Your task to perform on an android device: turn off javascript in the chrome app Image 0: 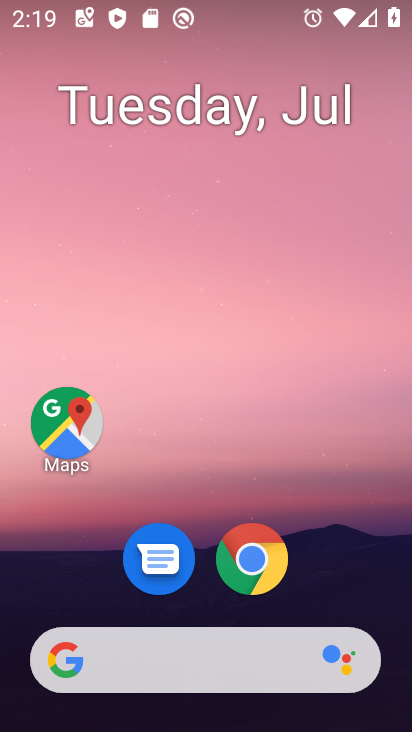
Step 0: press home button
Your task to perform on an android device: turn off javascript in the chrome app Image 1: 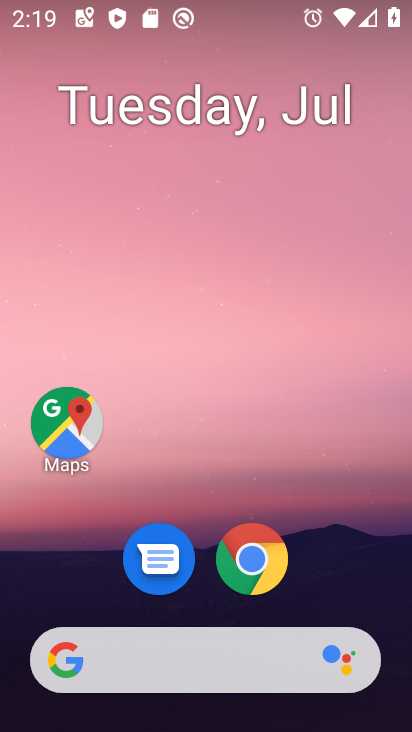
Step 1: drag from (359, 570) to (369, 118)
Your task to perform on an android device: turn off javascript in the chrome app Image 2: 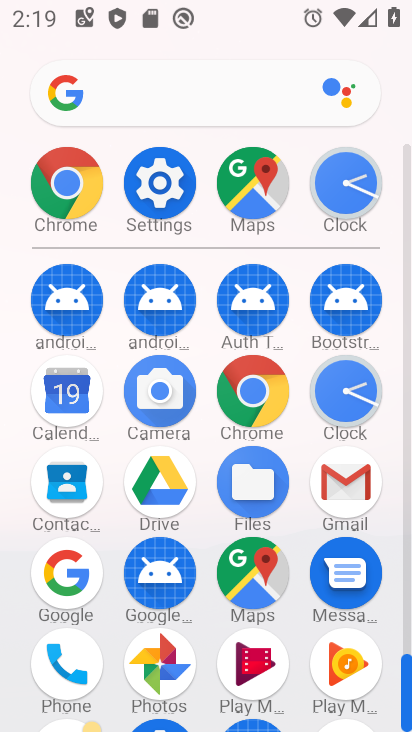
Step 2: click (266, 395)
Your task to perform on an android device: turn off javascript in the chrome app Image 3: 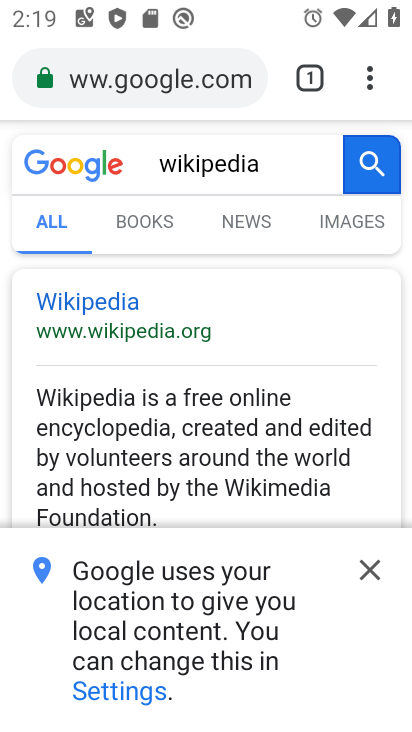
Step 3: click (372, 91)
Your task to perform on an android device: turn off javascript in the chrome app Image 4: 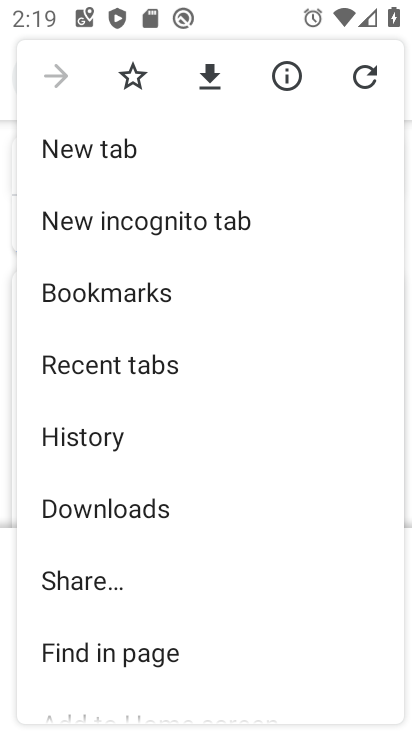
Step 4: drag from (348, 415) to (357, 329)
Your task to perform on an android device: turn off javascript in the chrome app Image 5: 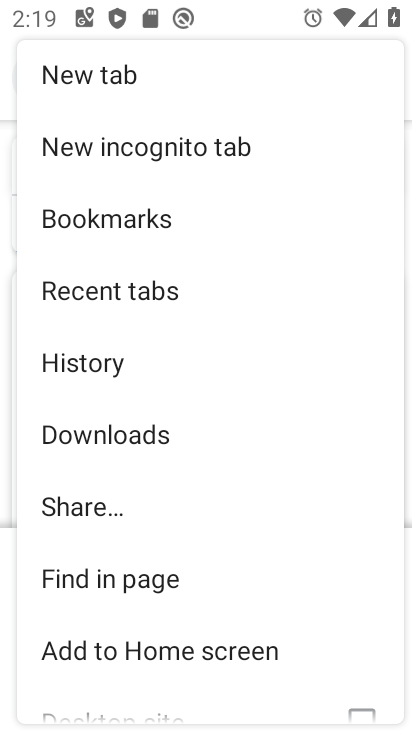
Step 5: drag from (339, 402) to (341, 320)
Your task to perform on an android device: turn off javascript in the chrome app Image 6: 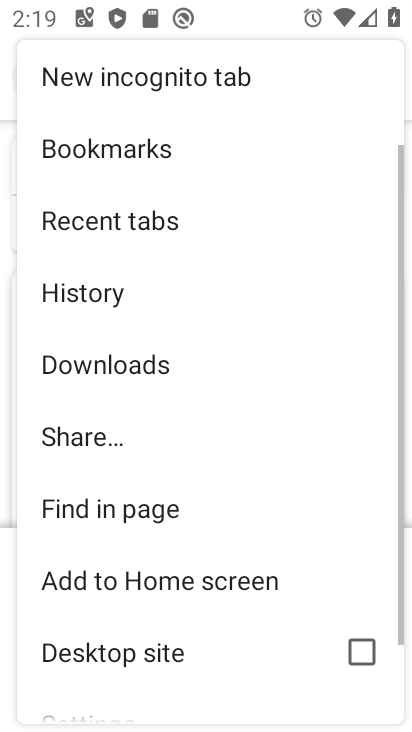
Step 6: drag from (329, 427) to (334, 333)
Your task to perform on an android device: turn off javascript in the chrome app Image 7: 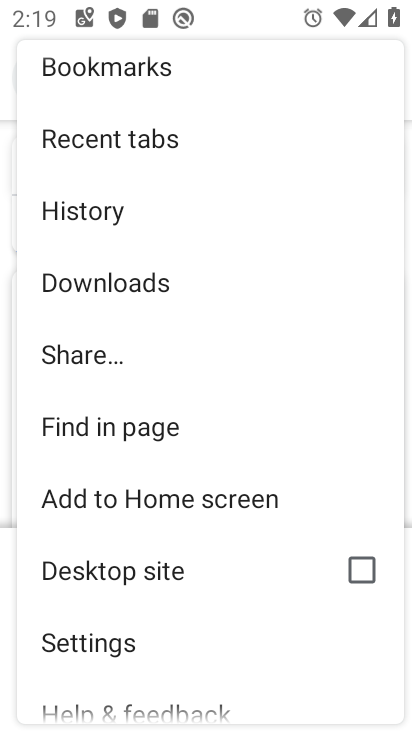
Step 7: drag from (320, 431) to (321, 335)
Your task to perform on an android device: turn off javascript in the chrome app Image 8: 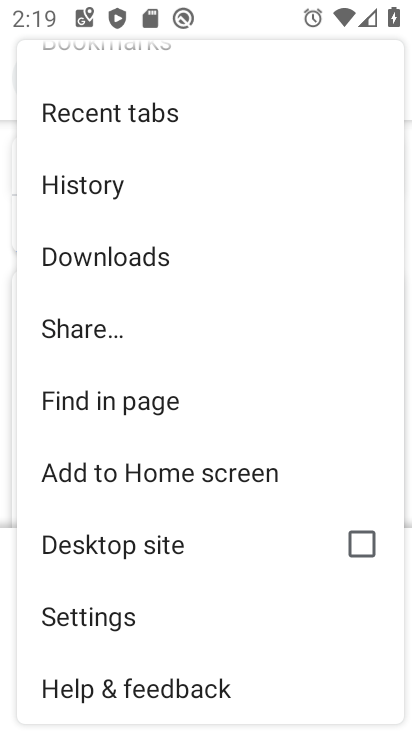
Step 8: click (129, 623)
Your task to perform on an android device: turn off javascript in the chrome app Image 9: 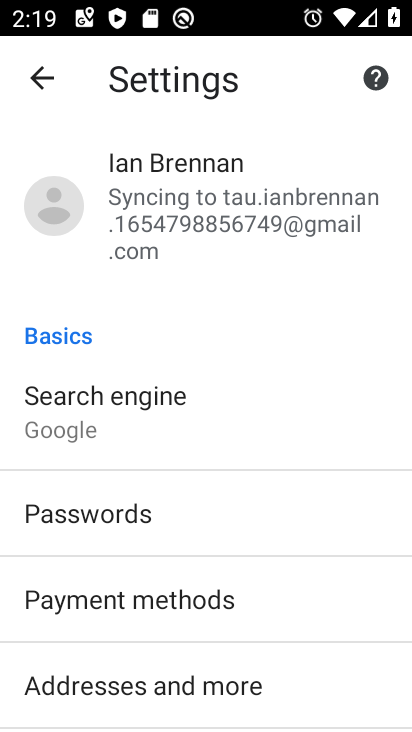
Step 9: drag from (330, 563) to (348, 481)
Your task to perform on an android device: turn off javascript in the chrome app Image 10: 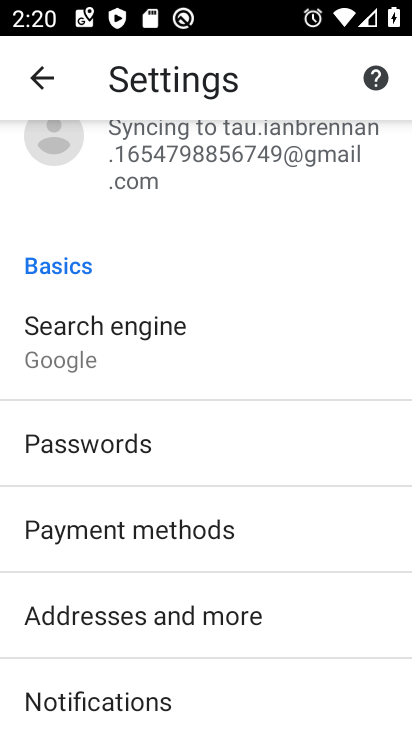
Step 10: drag from (349, 555) to (355, 493)
Your task to perform on an android device: turn off javascript in the chrome app Image 11: 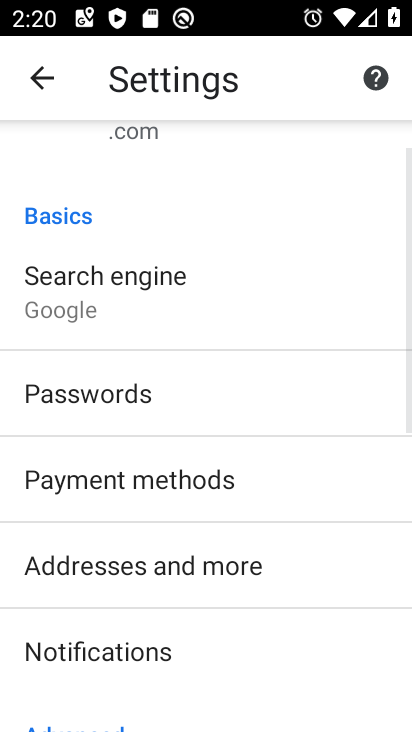
Step 11: drag from (359, 570) to (359, 472)
Your task to perform on an android device: turn off javascript in the chrome app Image 12: 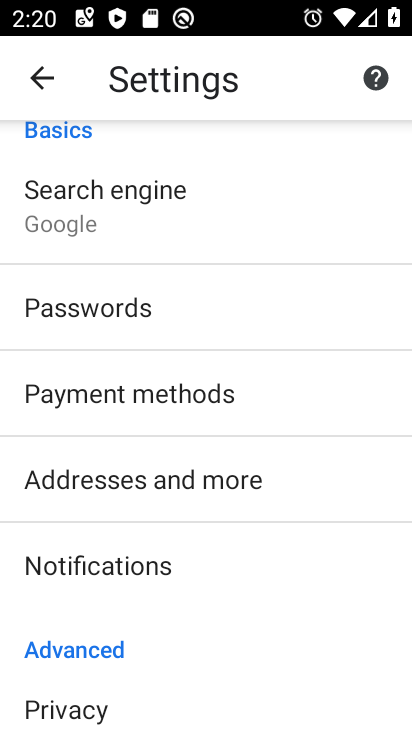
Step 12: drag from (356, 555) to (356, 471)
Your task to perform on an android device: turn off javascript in the chrome app Image 13: 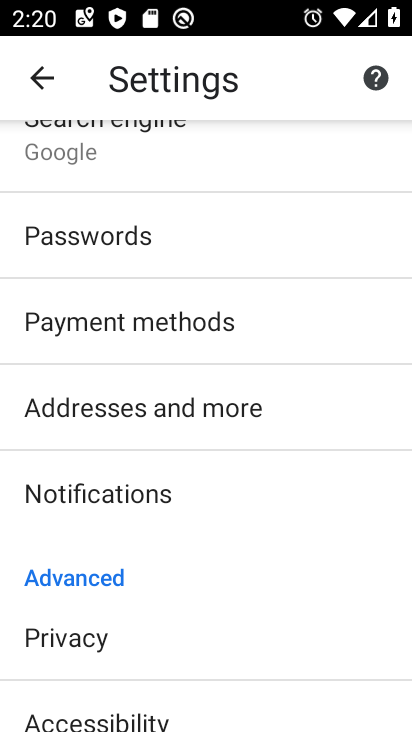
Step 13: drag from (328, 556) to (327, 474)
Your task to perform on an android device: turn off javascript in the chrome app Image 14: 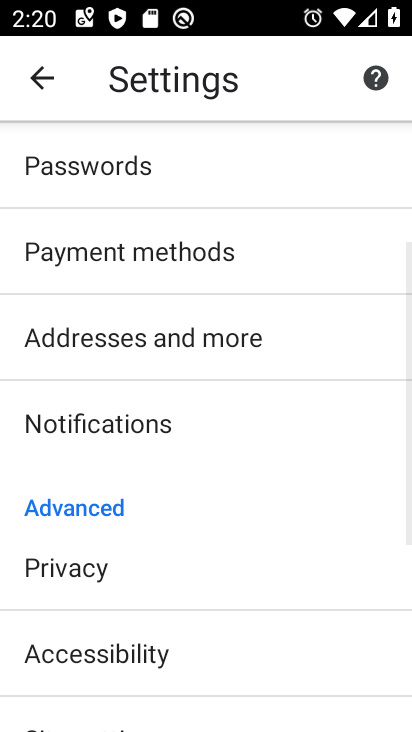
Step 14: drag from (326, 572) to (326, 478)
Your task to perform on an android device: turn off javascript in the chrome app Image 15: 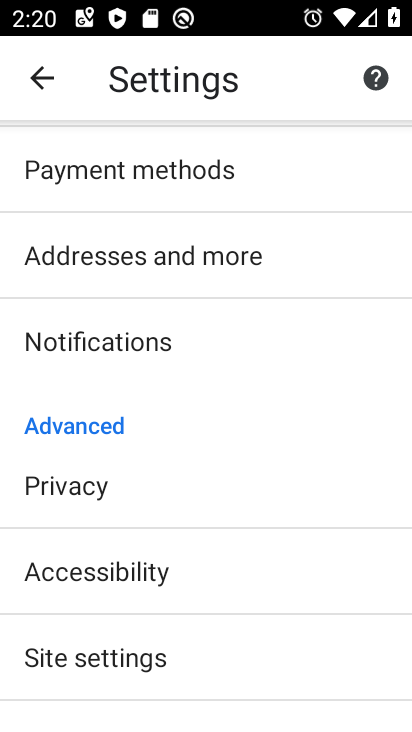
Step 15: drag from (319, 530) to (319, 408)
Your task to perform on an android device: turn off javascript in the chrome app Image 16: 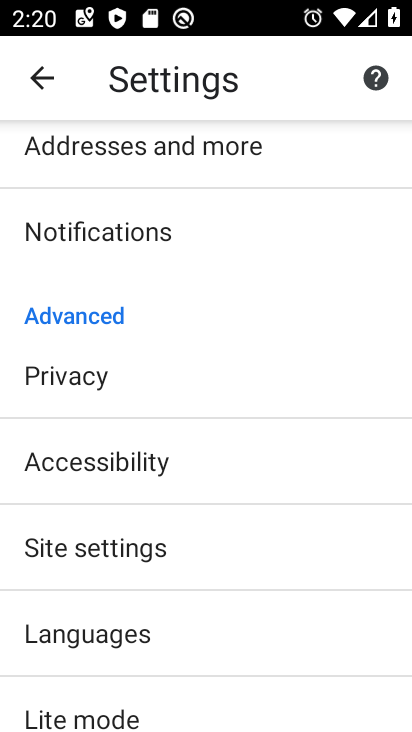
Step 16: drag from (310, 545) to (317, 385)
Your task to perform on an android device: turn off javascript in the chrome app Image 17: 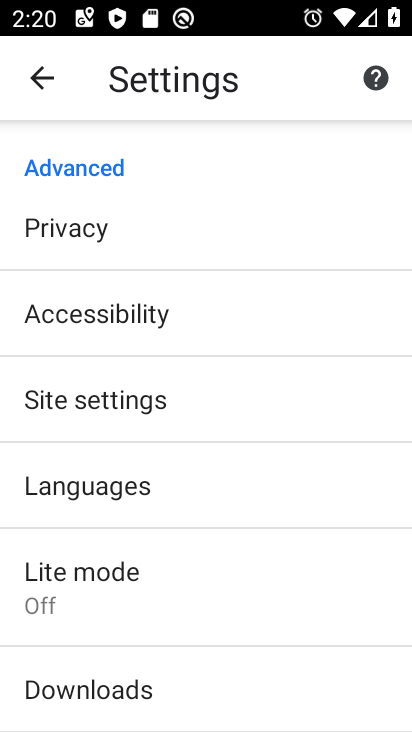
Step 17: drag from (294, 479) to (294, 359)
Your task to perform on an android device: turn off javascript in the chrome app Image 18: 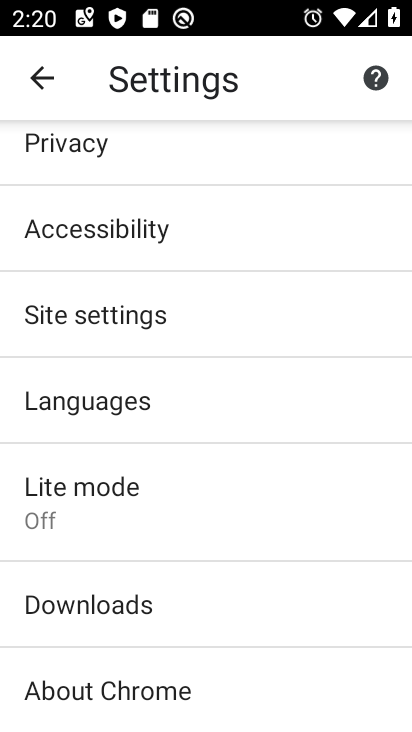
Step 18: drag from (298, 486) to (300, 413)
Your task to perform on an android device: turn off javascript in the chrome app Image 19: 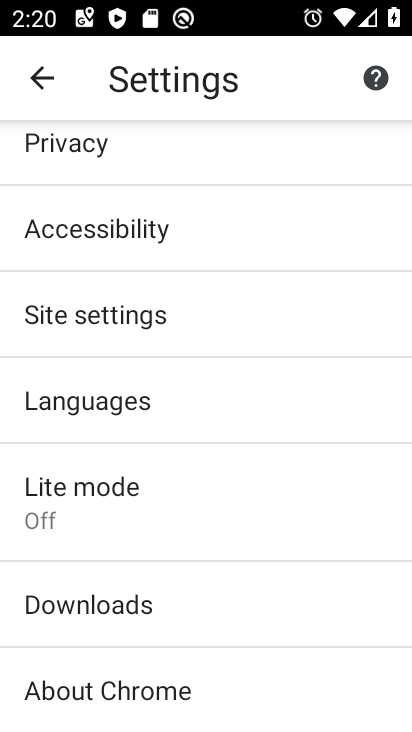
Step 19: click (255, 330)
Your task to perform on an android device: turn off javascript in the chrome app Image 20: 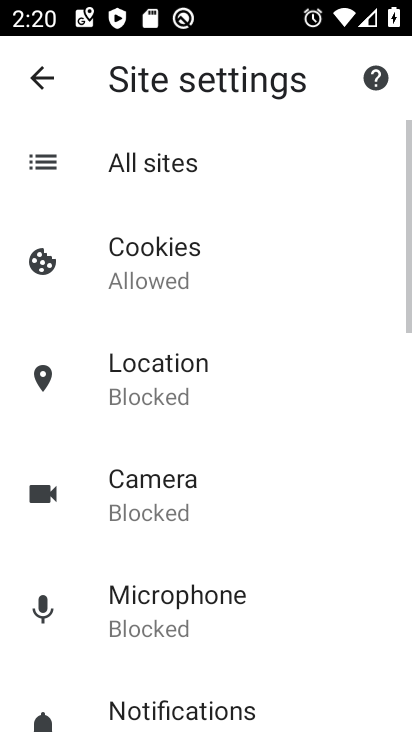
Step 20: drag from (292, 482) to (302, 407)
Your task to perform on an android device: turn off javascript in the chrome app Image 21: 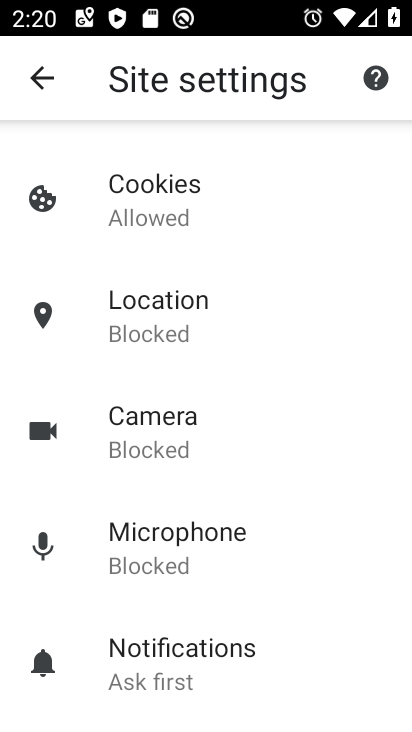
Step 21: drag from (323, 528) to (325, 442)
Your task to perform on an android device: turn off javascript in the chrome app Image 22: 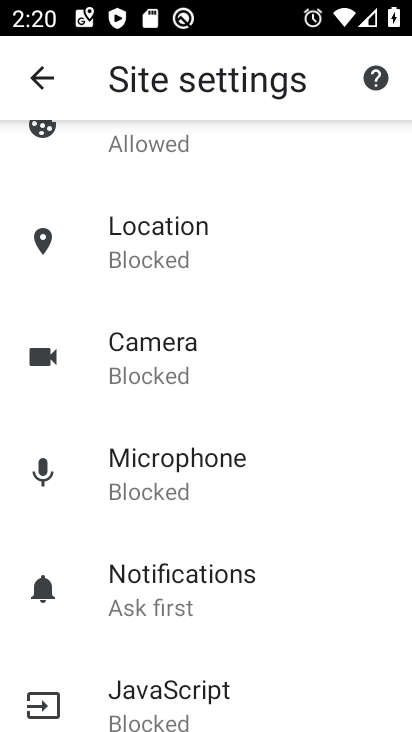
Step 22: drag from (318, 571) to (317, 494)
Your task to perform on an android device: turn off javascript in the chrome app Image 23: 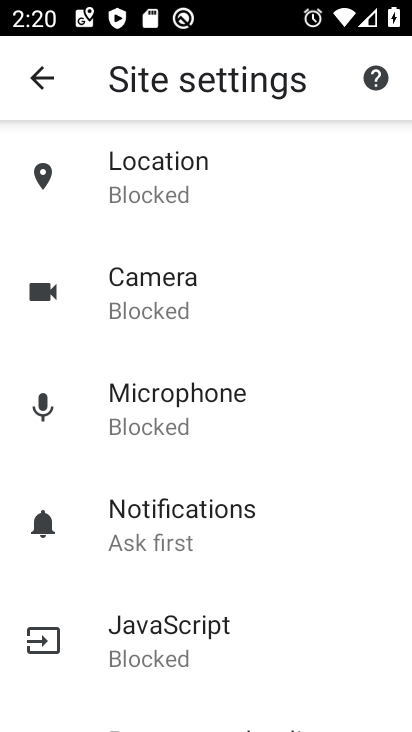
Step 23: drag from (314, 591) to (314, 502)
Your task to perform on an android device: turn off javascript in the chrome app Image 24: 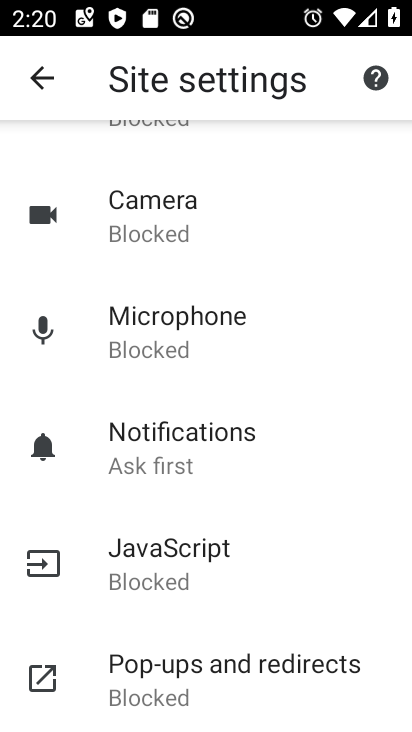
Step 24: drag from (307, 584) to (311, 380)
Your task to perform on an android device: turn off javascript in the chrome app Image 25: 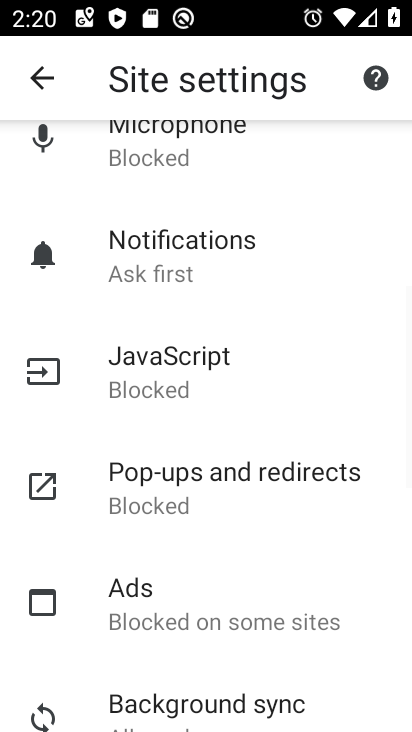
Step 25: click (311, 380)
Your task to perform on an android device: turn off javascript in the chrome app Image 26: 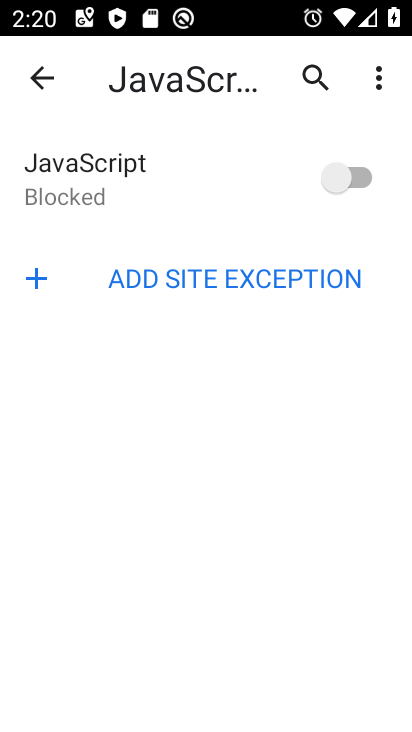
Step 26: task complete